Your task to perform on an android device: Go to eBay Image 0: 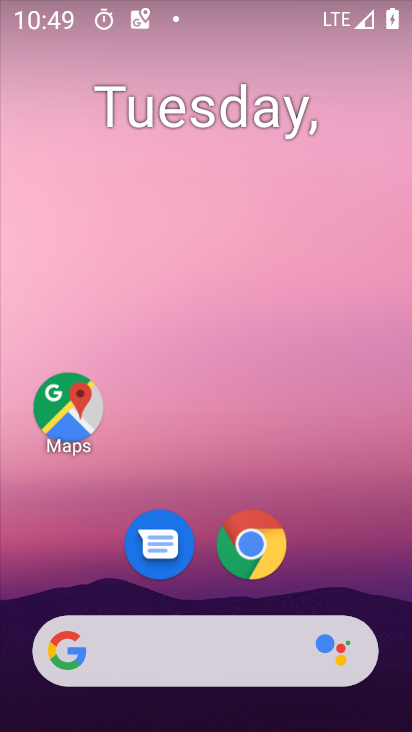
Step 0: click (246, 569)
Your task to perform on an android device: Go to eBay Image 1: 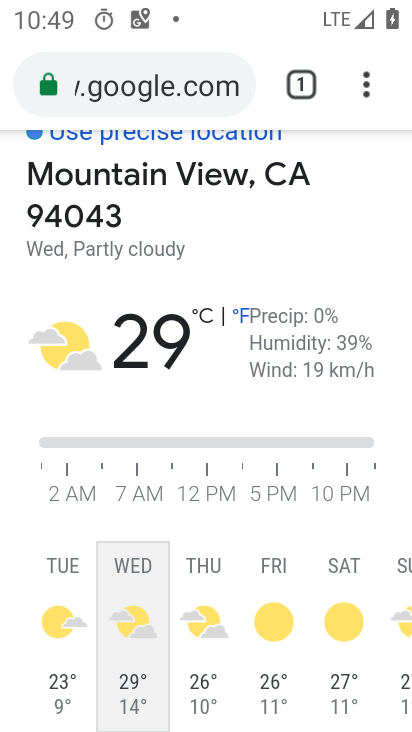
Step 1: click (305, 84)
Your task to perform on an android device: Go to eBay Image 2: 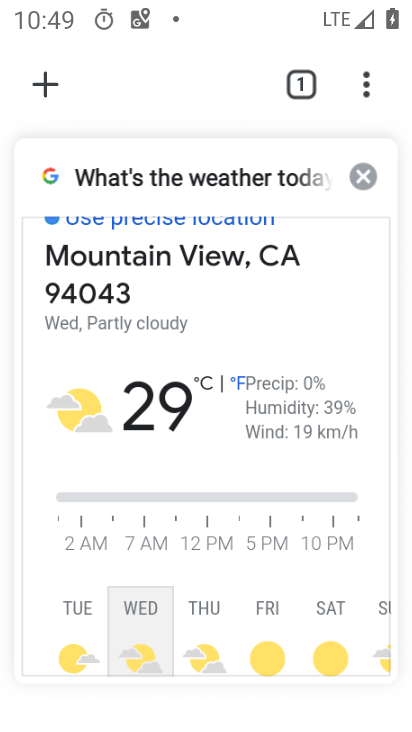
Step 2: click (51, 84)
Your task to perform on an android device: Go to eBay Image 3: 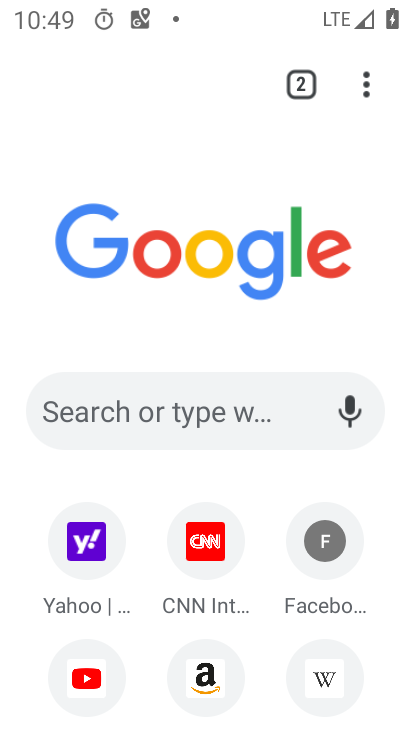
Step 3: click (275, 420)
Your task to perform on an android device: Go to eBay Image 4: 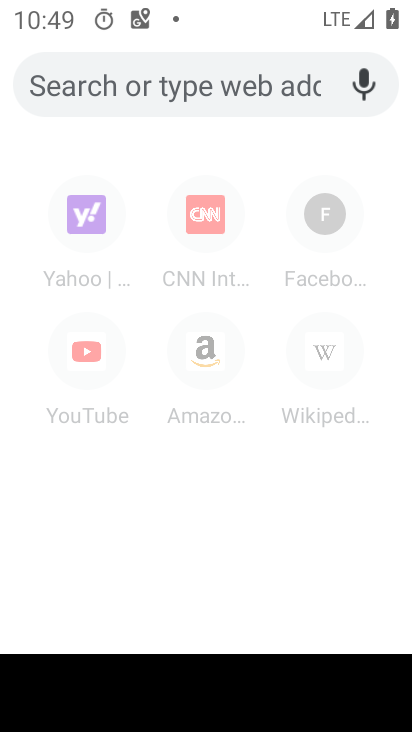
Step 4: type "ebay"
Your task to perform on an android device: Go to eBay Image 5: 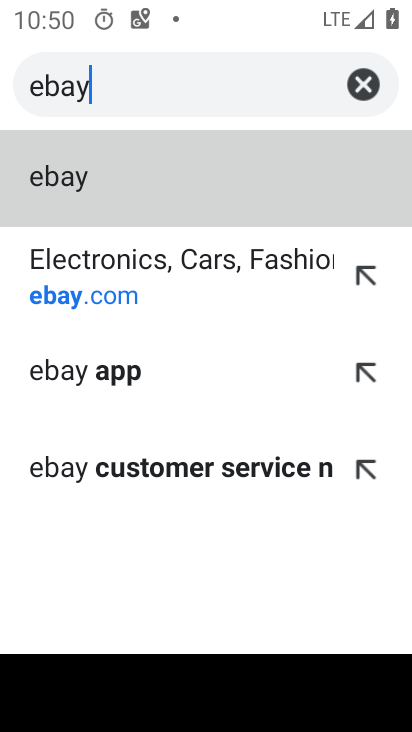
Step 5: click (86, 296)
Your task to perform on an android device: Go to eBay Image 6: 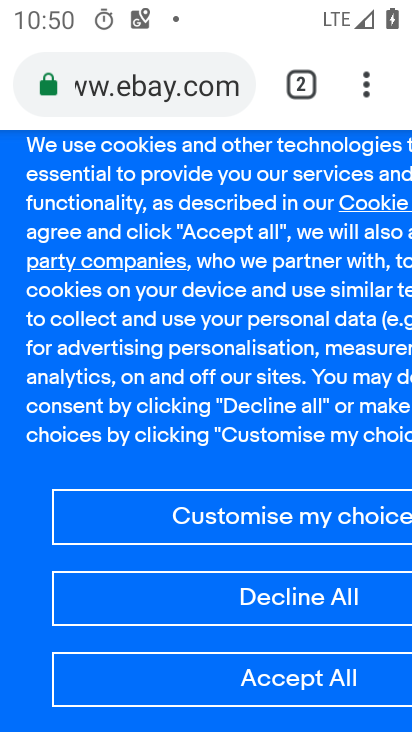
Step 6: task complete